Your task to perform on an android device: Open maps Image 0: 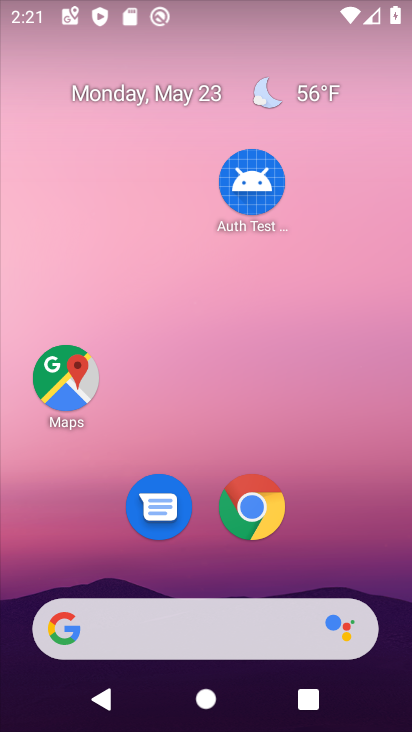
Step 0: drag from (262, 545) to (201, 171)
Your task to perform on an android device: Open maps Image 1: 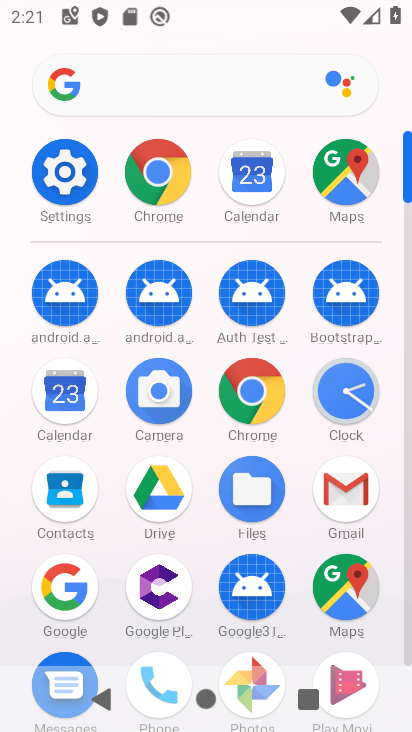
Step 1: click (348, 195)
Your task to perform on an android device: Open maps Image 2: 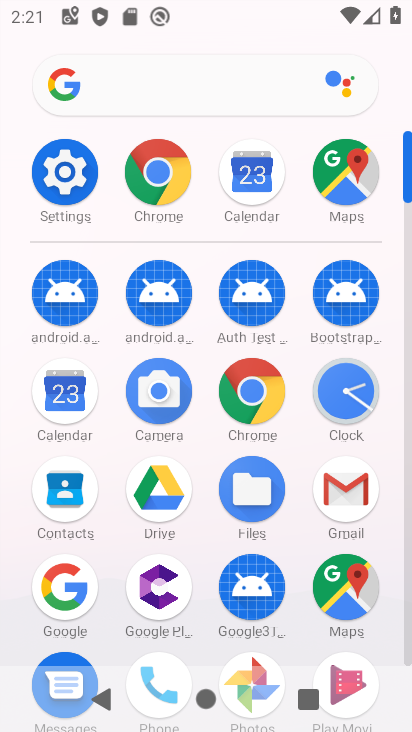
Step 2: click (348, 195)
Your task to perform on an android device: Open maps Image 3: 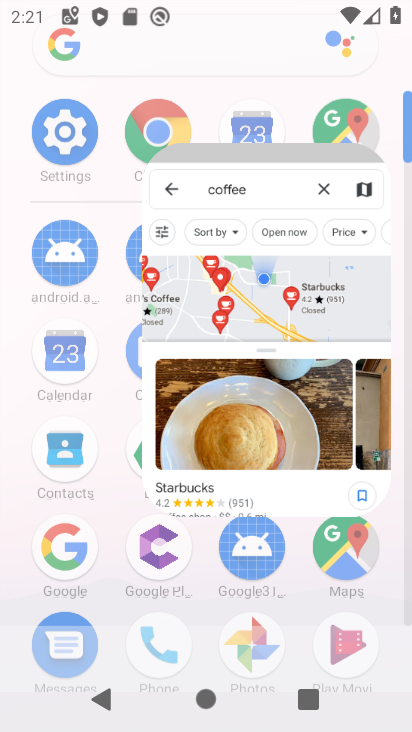
Step 3: click (347, 195)
Your task to perform on an android device: Open maps Image 4: 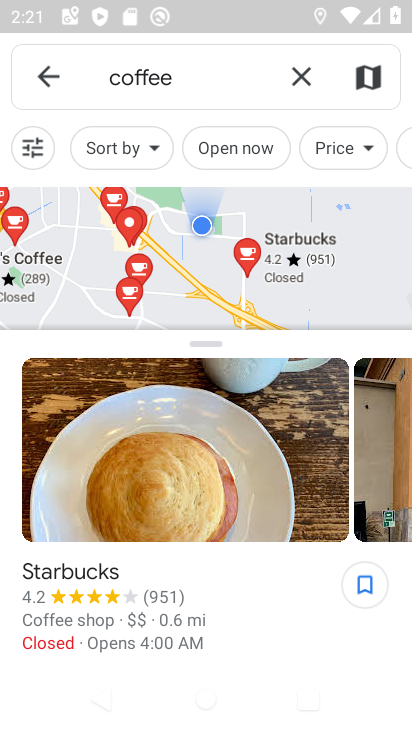
Step 4: task complete